Your task to perform on an android device: uninstall "LiveIn - Share Your Moment" Image 0: 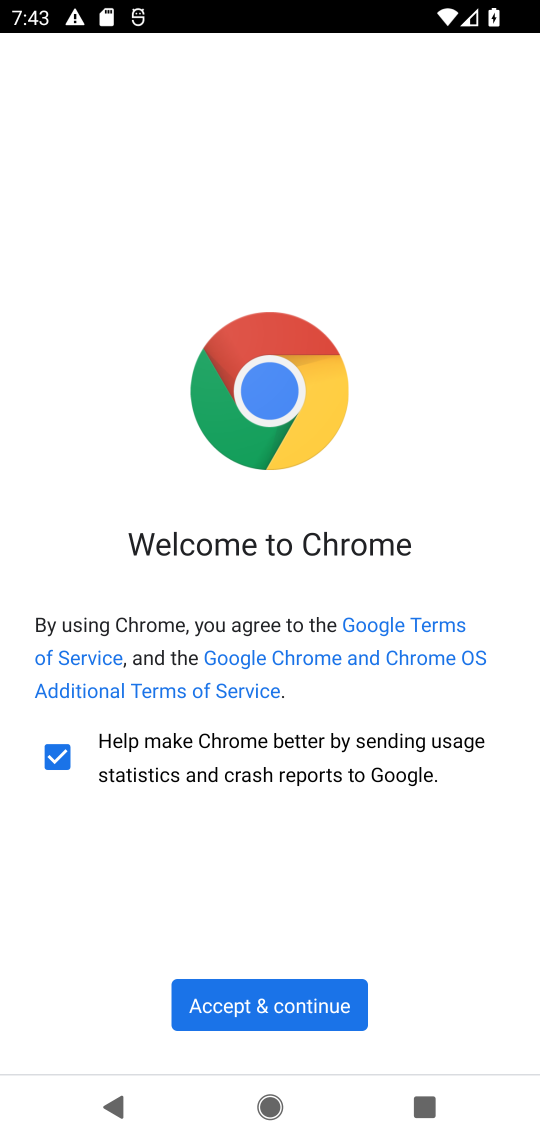
Step 0: press home button
Your task to perform on an android device: uninstall "LiveIn - Share Your Moment" Image 1: 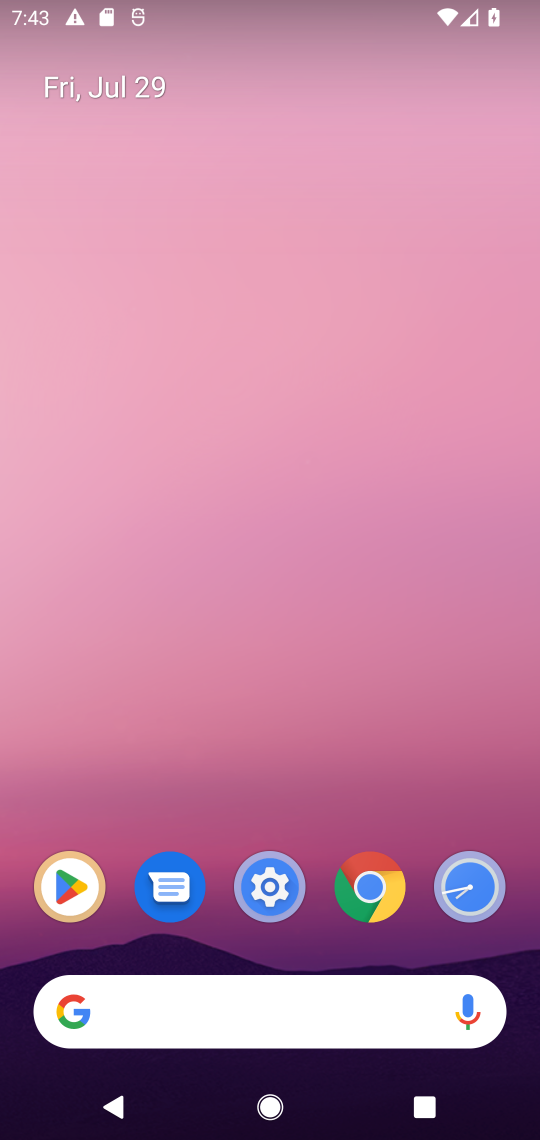
Step 1: drag from (310, 688) to (360, 80)
Your task to perform on an android device: uninstall "LiveIn - Share Your Moment" Image 2: 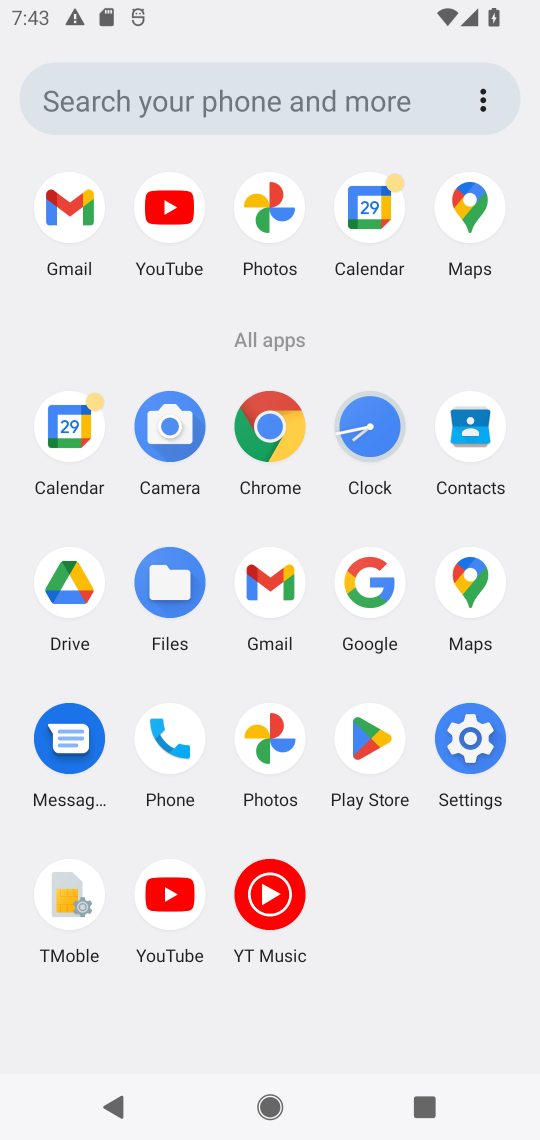
Step 2: click (378, 728)
Your task to perform on an android device: uninstall "LiveIn - Share Your Moment" Image 3: 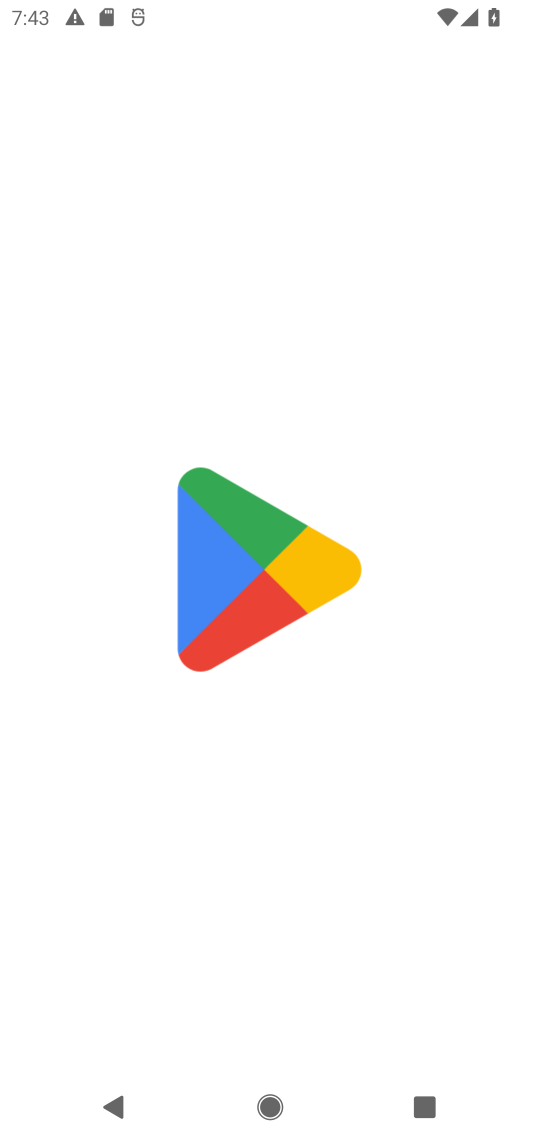
Step 3: click (413, 104)
Your task to perform on an android device: uninstall "LiveIn - Share Your Moment" Image 4: 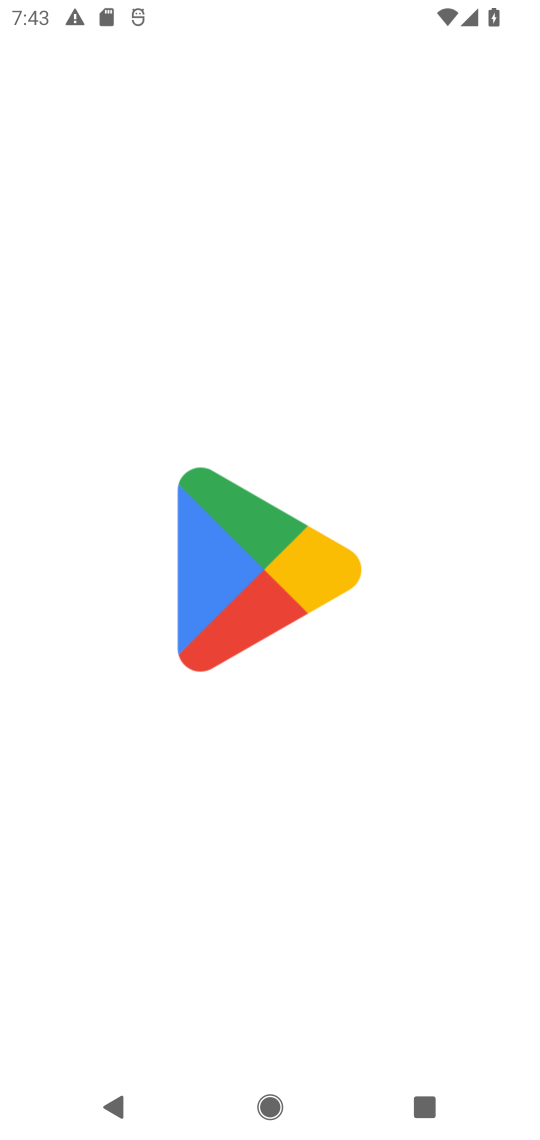
Step 4: task complete